Your task to perform on an android device: turn vacation reply on in the gmail app Image 0: 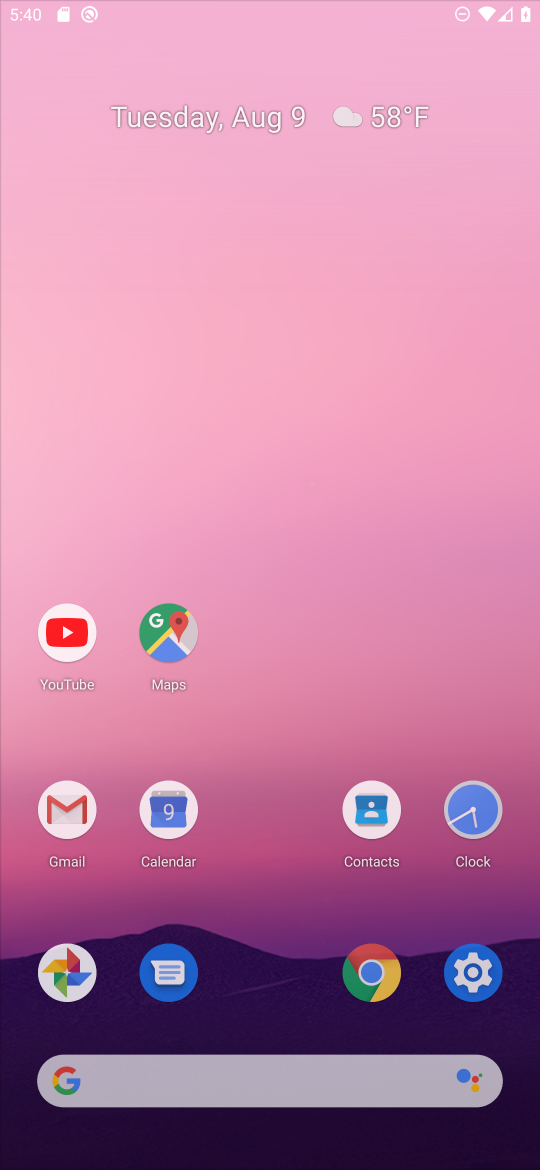
Step 0: press home button
Your task to perform on an android device: turn vacation reply on in the gmail app Image 1: 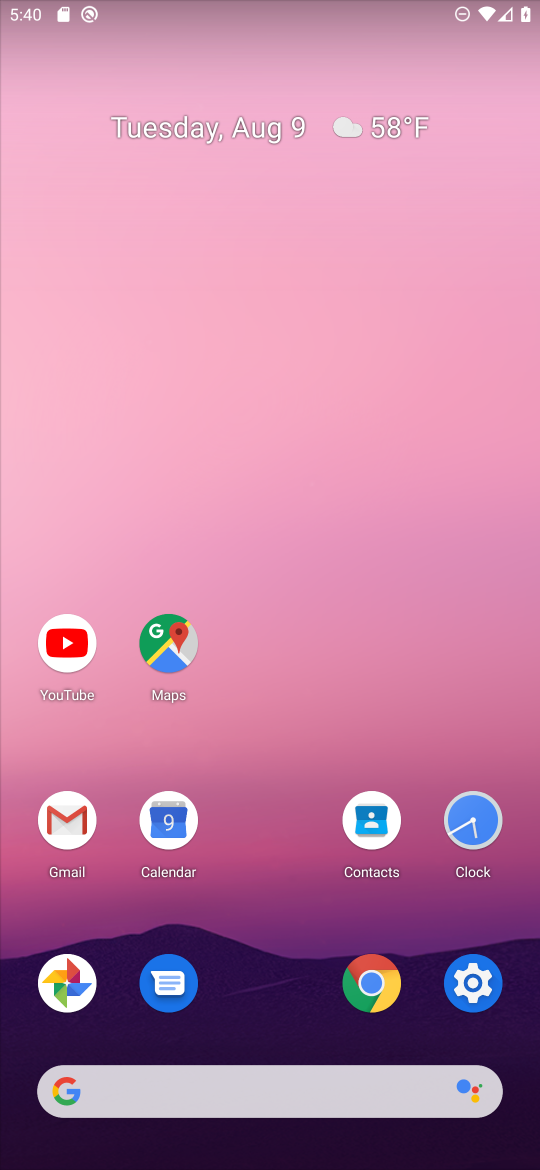
Step 1: click (63, 827)
Your task to perform on an android device: turn vacation reply on in the gmail app Image 2: 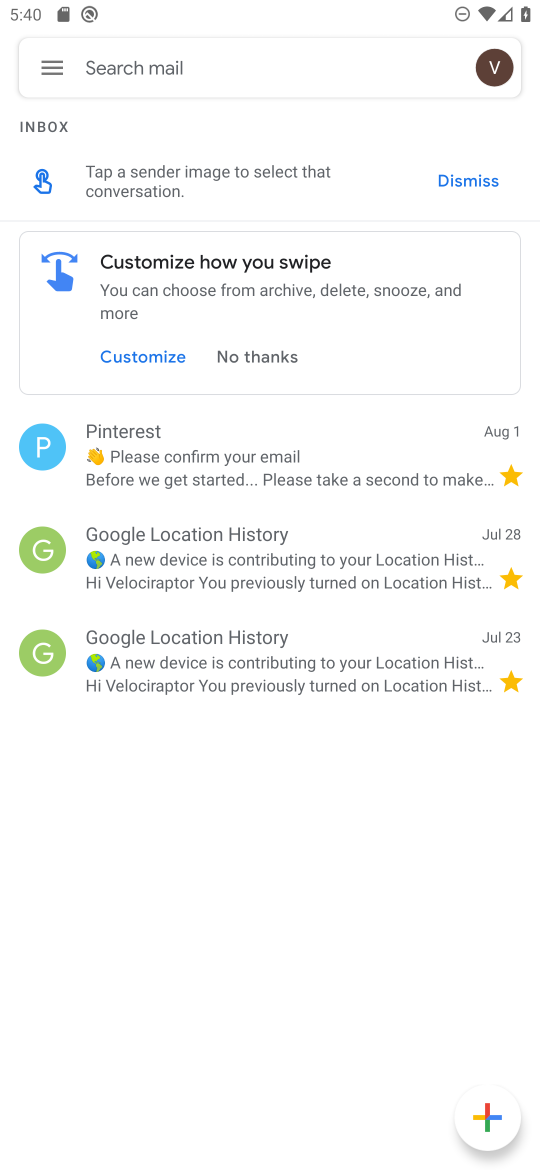
Step 2: click (44, 66)
Your task to perform on an android device: turn vacation reply on in the gmail app Image 3: 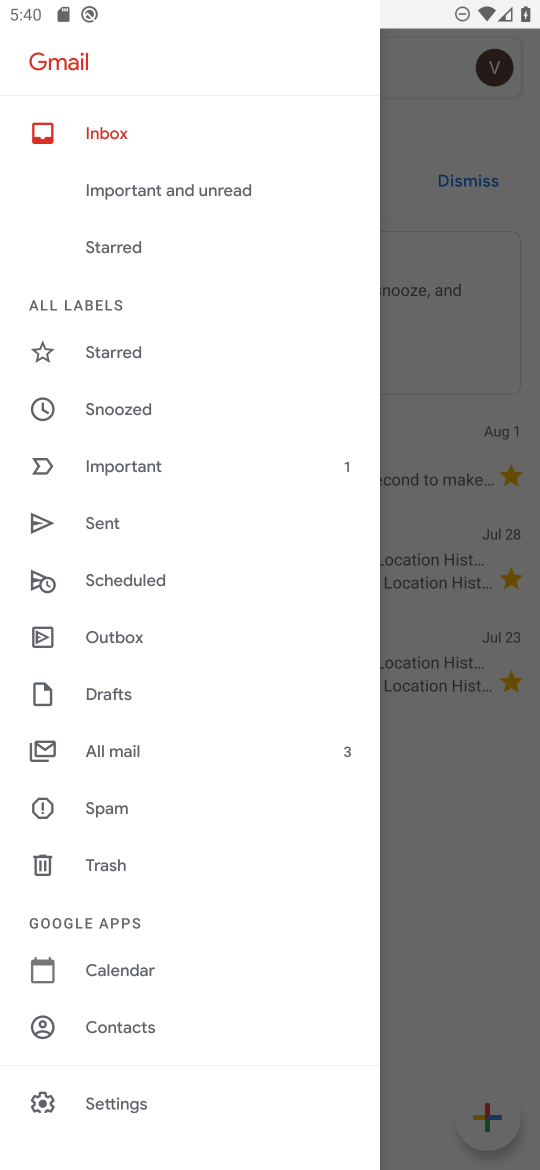
Step 3: drag from (206, 1032) to (191, 319)
Your task to perform on an android device: turn vacation reply on in the gmail app Image 4: 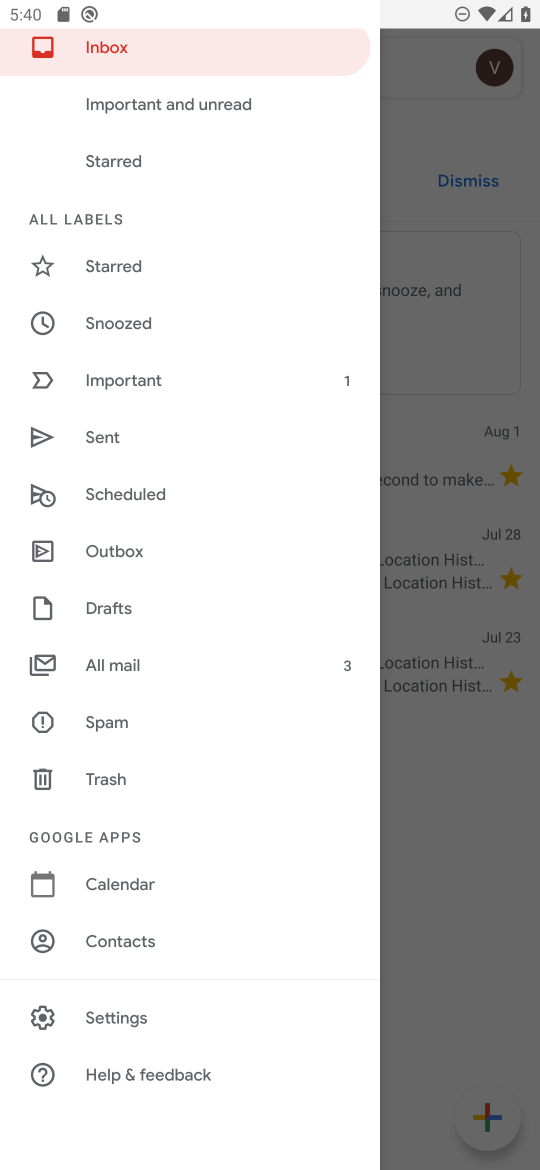
Step 4: click (125, 1013)
Your task to perform on an android device: turn vacation reply on in the gmail app Image 5: 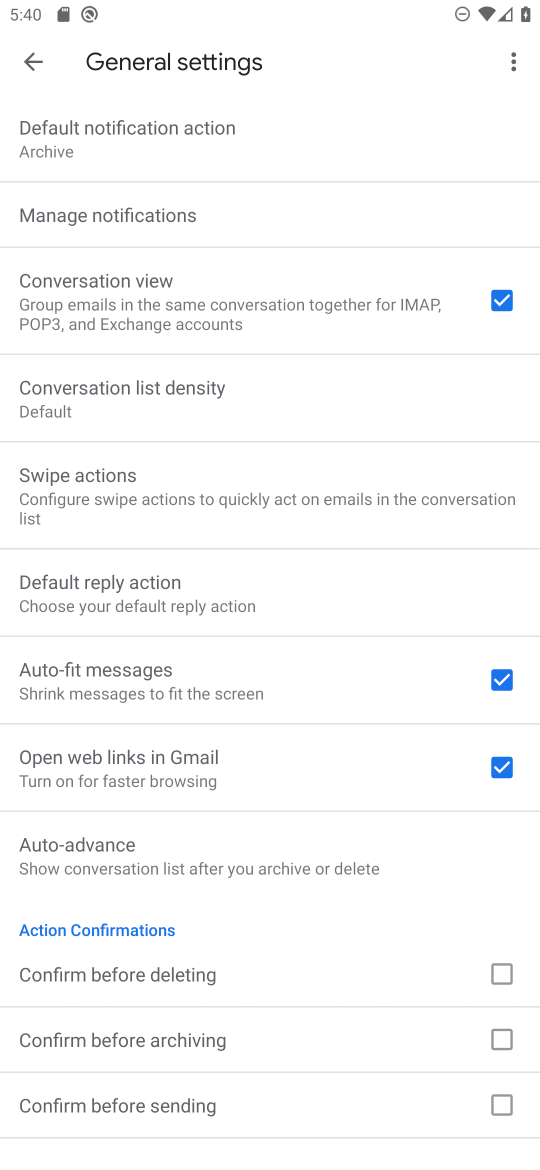
Step 5: drag from (287, 964) to (231, 325)
Your task to perform on an android device: turn vacation reply on in the gmail app Image 6: 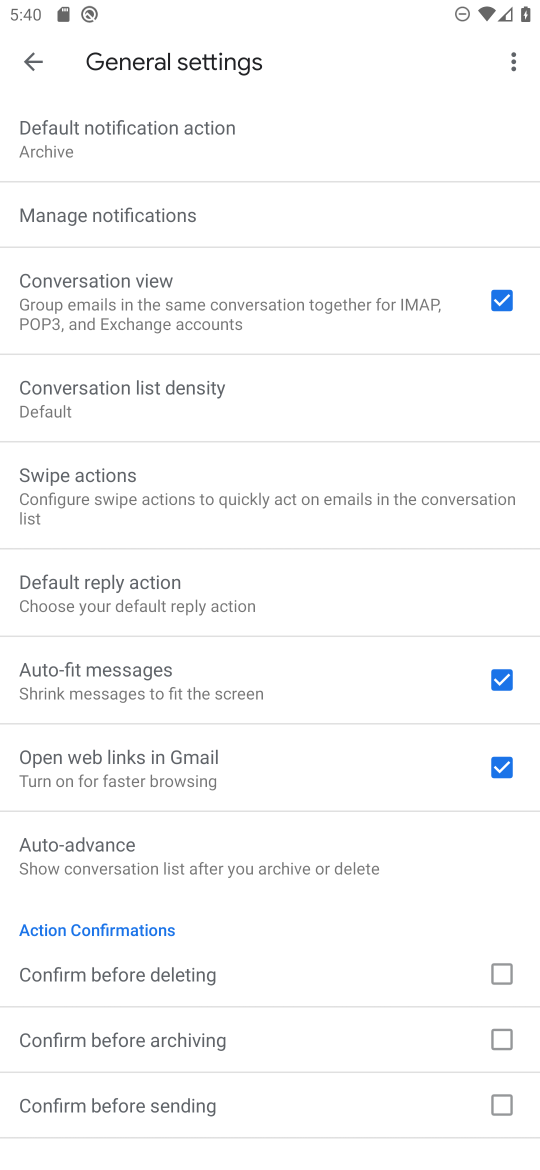
Step 6: click (27, 53)
Your task to perform on an android device: turn vacation reply on in the gmail app Image 7: 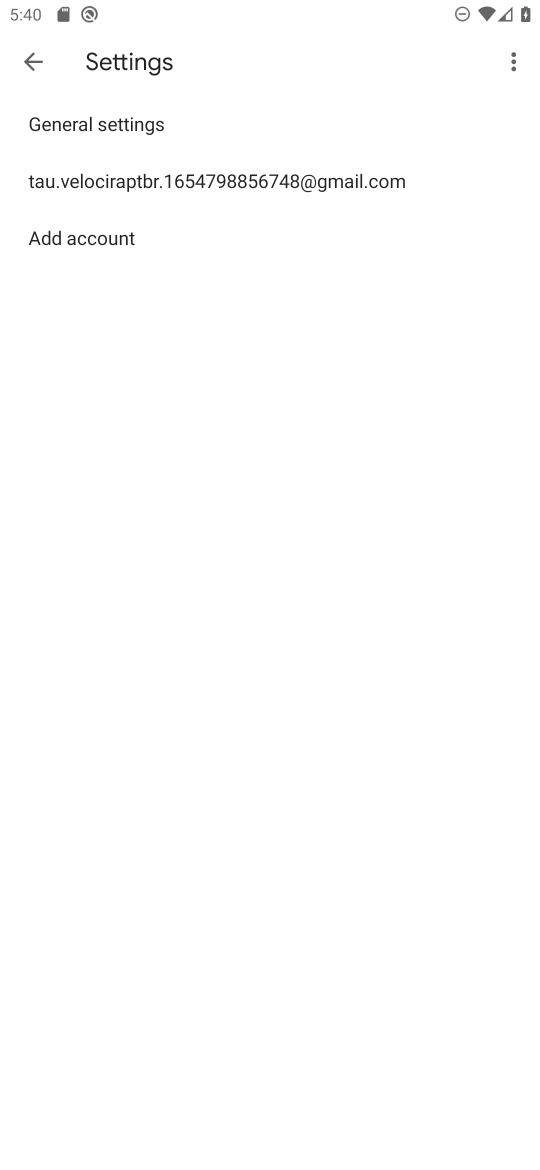
Step 7: click (112, 168)
Your task to perform on an android device: turn vacation reply on in the gmail app Image 8: 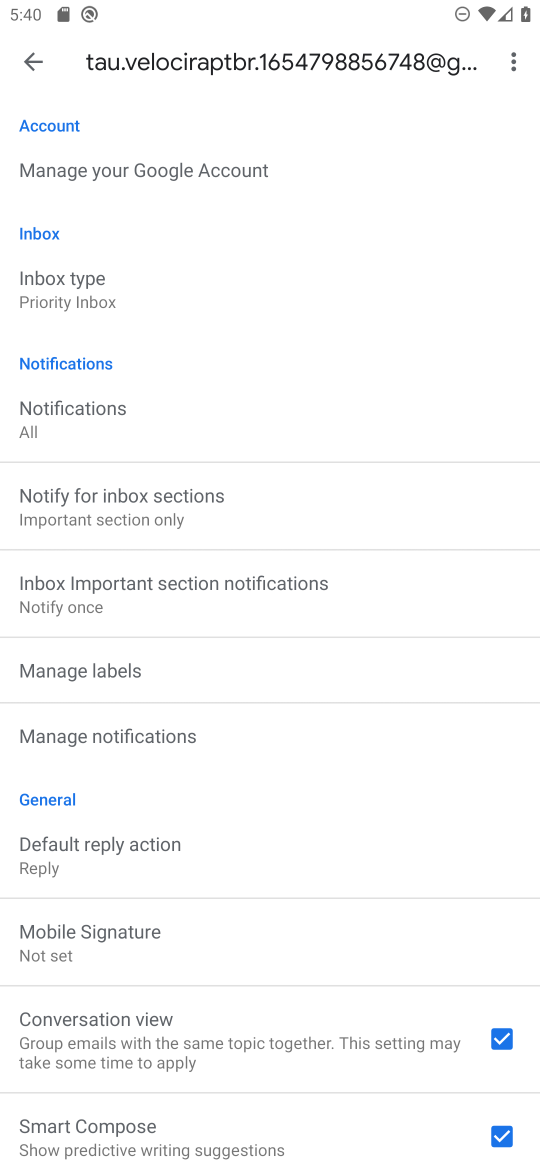
Step 8: drag from (271, 910) to (264, 260)
Your task to perform on an android device: turn vacation reply on in the gmail app Image 9: 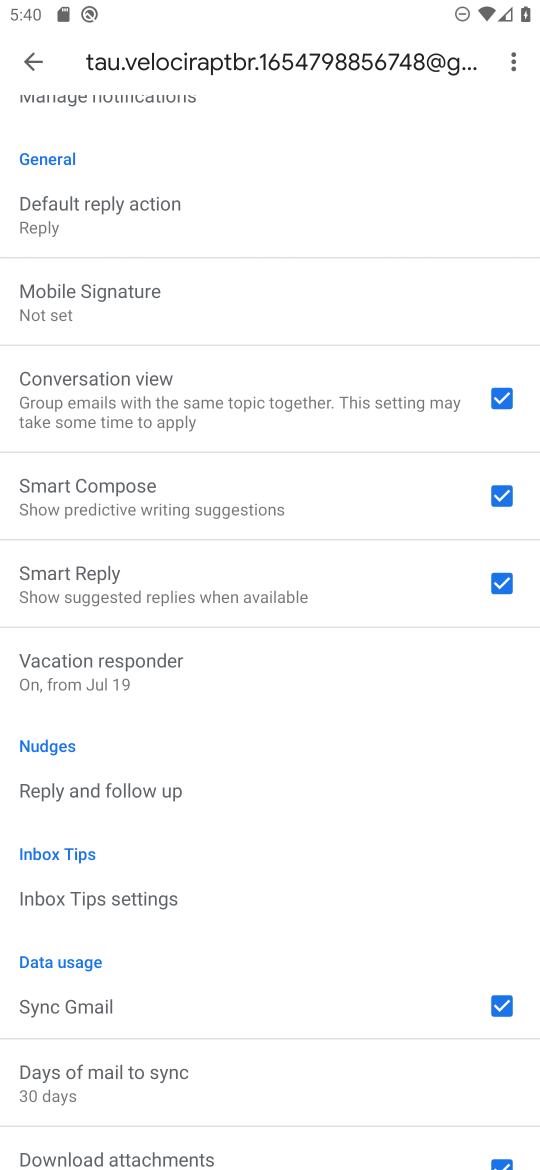
Step 9: click (189, 668)
Your task to perform on an android device: turn vacation reply on in the gmail app Image 10: 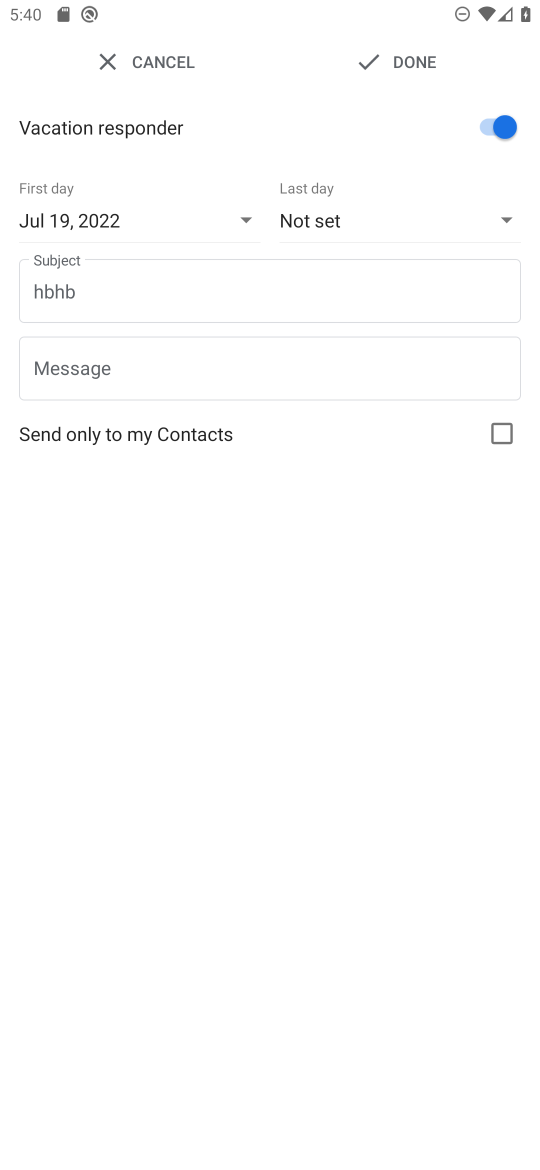
Step 10: task complete